Your task to perform on an android device: toggle pop-ups in chrome Image 0: 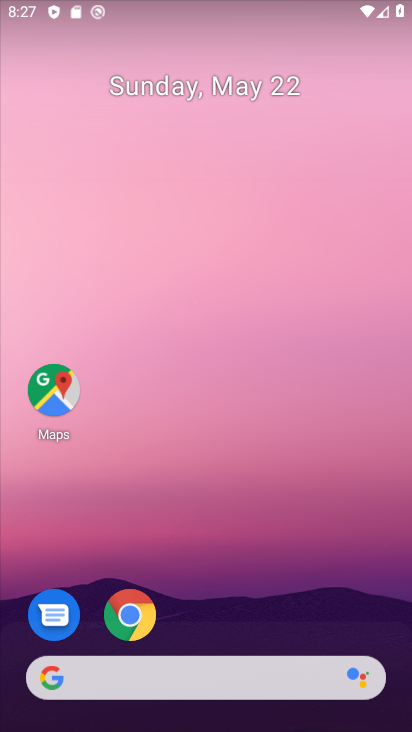
Step 0: drag from (269, 588) to (242, 157)
Your task to perform on an android device: toggle pop-ups in chrome Image 1: 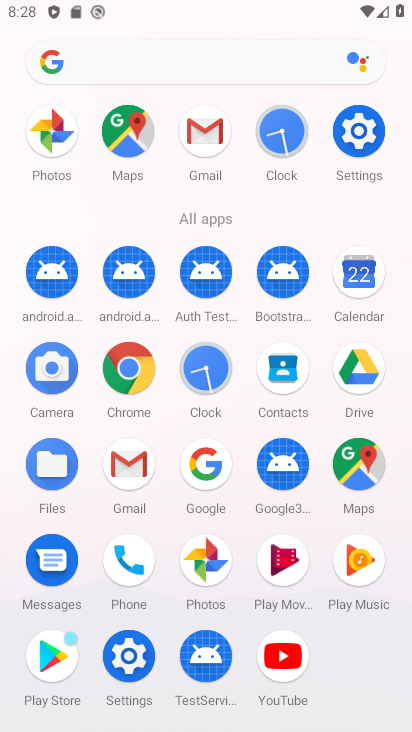
Step 1: click (129, 359)
Your task to perform on an android device: toggle pop-ups in chrome Image 2: 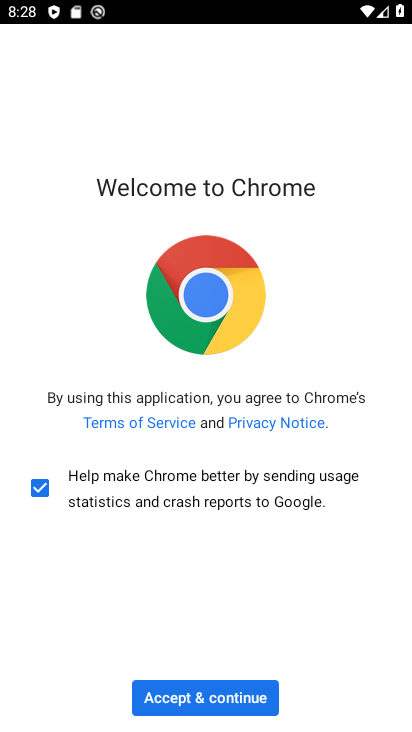
Step 2: click (224, 696)
Your task to perform on an android device: toggle pop-ups in chrome Image 3: 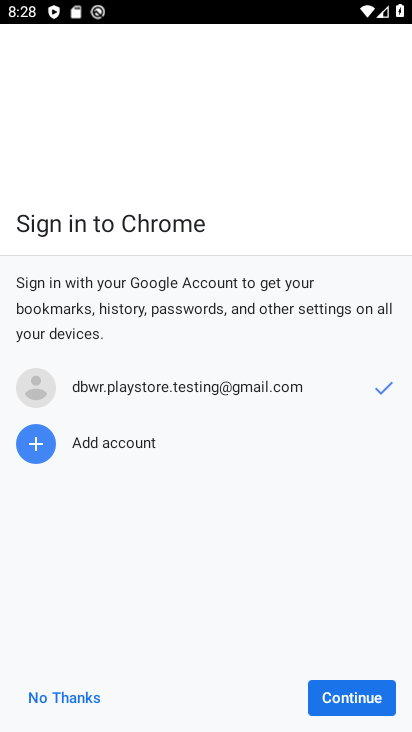
Step 3: click (332, 700)
Your task to perform on an android device: toggle pop-ups in chrome Image 4: 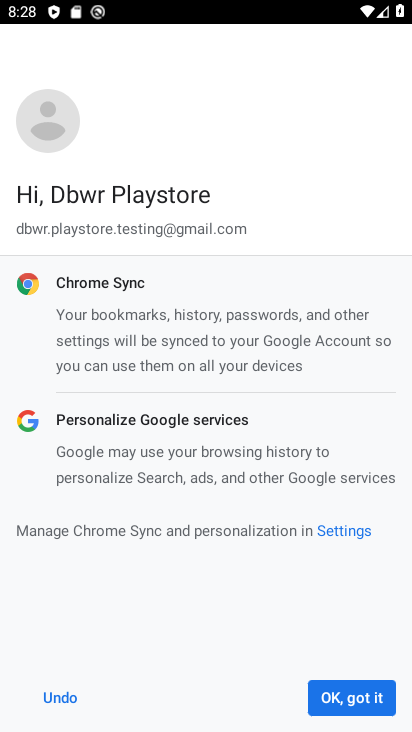
Step 4: click (337, 698)
Your task to perform on an android device: toggle pop-ups in chrome Image 5: 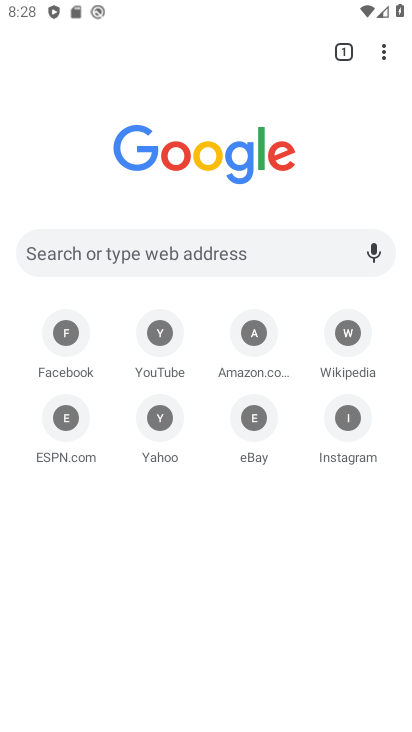
Step 5: click (386, 56)
Your task to perform on an android device: toggle pop-ups in chrome Image 6: 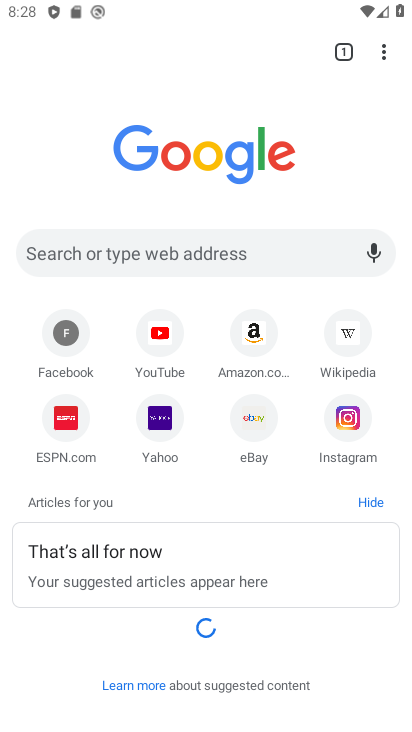
Step 6: click (386, 46)
Your task to perform on an android device: toggle pop-ups in chrome Image 7: 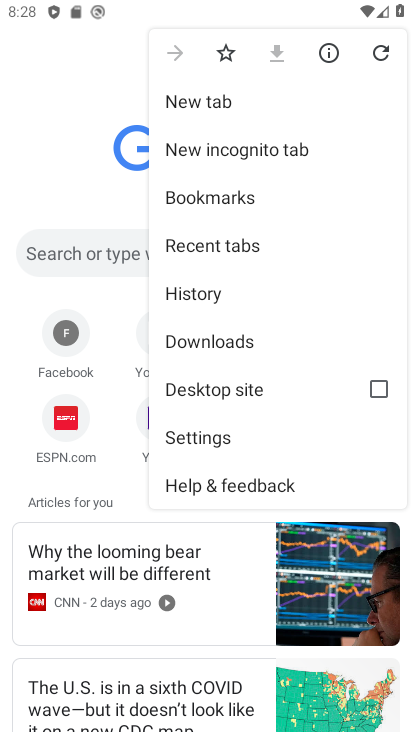
Step 7: click (220, 444)
Your task to perform on an android device: toggle pop-ups in chrome Image 8: 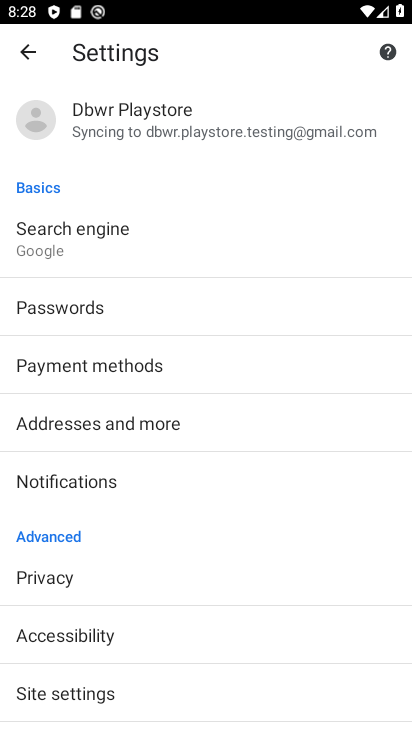
Step 8: drag from (181, 653) to (191, 364)
Your task to perform on an android device: toggle pop-ups in chrome Image 9: 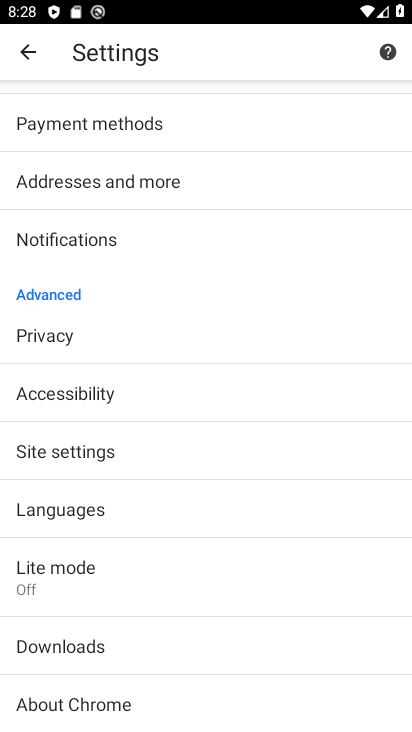
Step 9: click (109, 452)
Your task to perform on an android device: toggle pop-ups in chrome Image 10: 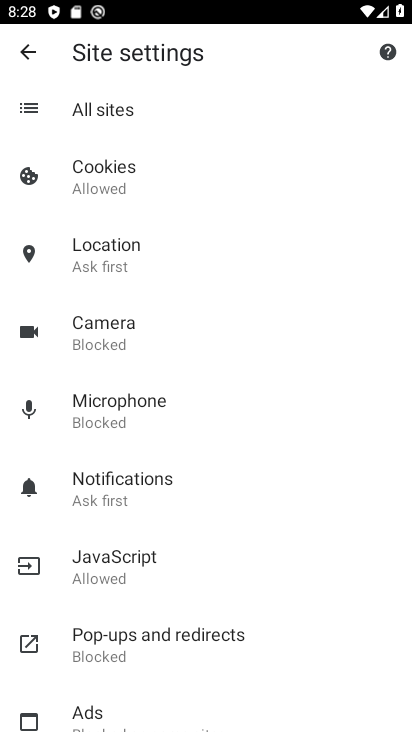
Step 10: drag from (171, 586) to (190, 449)
Your task to perform on an android device: toggle pop-ups in chrome Image 11: 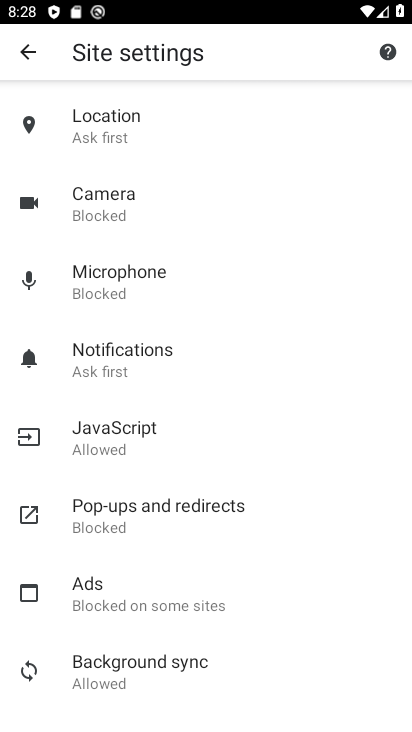
Step 11: click (151, 529)
Your task to perform on an android device: toggle pop-ups in chrome Image 12: 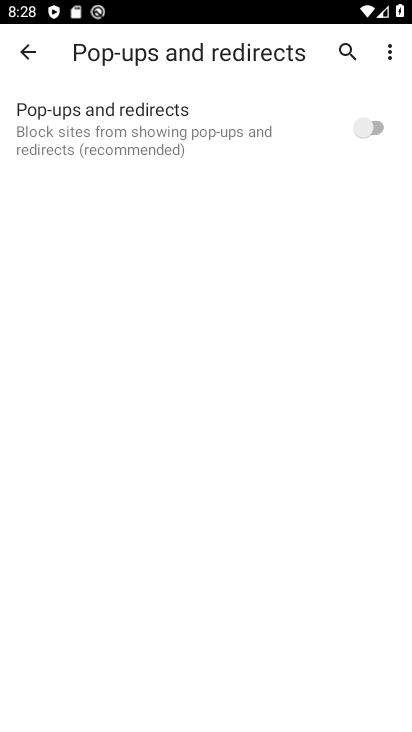
Step 12: click (378, 122)
Your task to perform on an android device: toggle pop-ups in chrome Image 13: 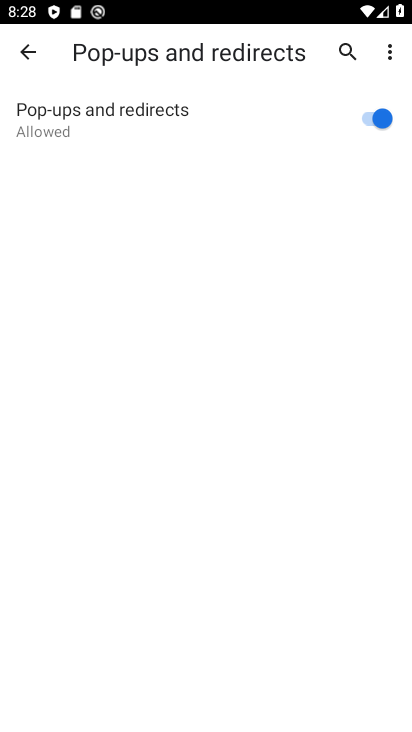
Step 13: task complete